Your task to perform on an android device: Open the calendar app, open the side menu, and click the "Day" option Image 0: 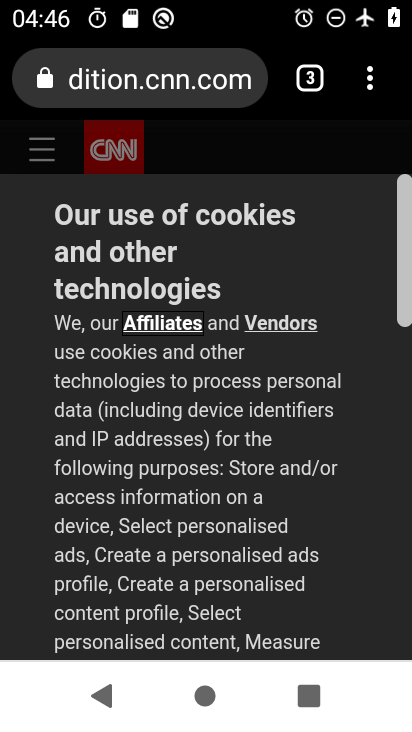
Step 0: press back button
Your task to perform on an android device: Open the calendar app, open the side menu, and click the "Day" option Image 1: 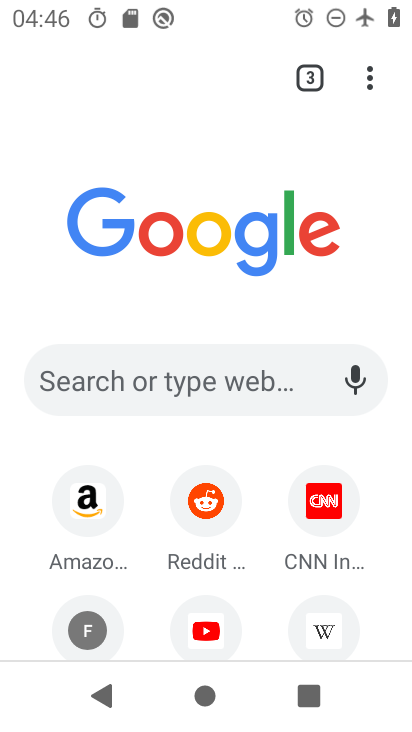
Step 1: press back button
Your task to perform on an android device: Open the calendar app, open the side menu, and click the "Day" option Image 2: 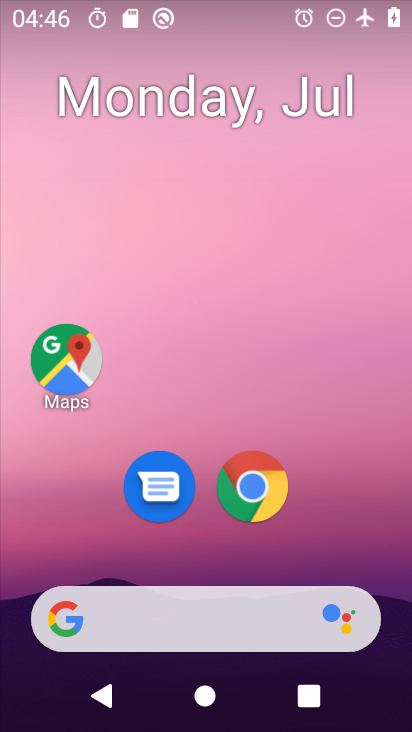
Step 2: drag from (119, 536) to (181, 42)
Your task to perform on an android device: Open the calendar app, open the side menu, and click the "Day" option Image 3: 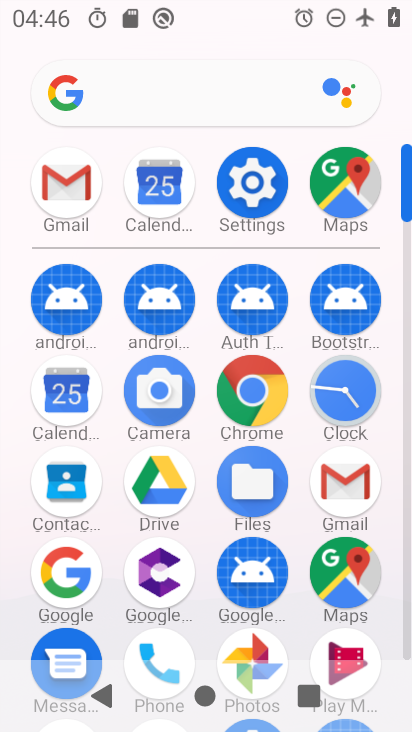
Step 3: click (64, 384)
Your task to perform on an android device: Open the calendar app, open the side menu, and click the "Day" option Image 4: 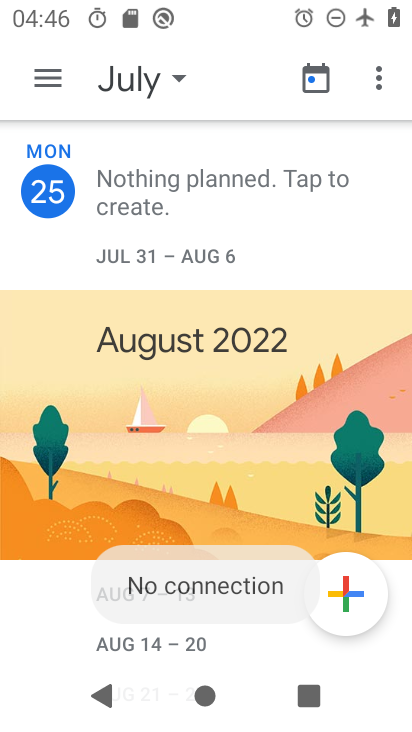
Step 4: click (46, 65)
Your task to perform on an android device: Open the calendar app, open the side menu, and click the "Day" option Image 5: 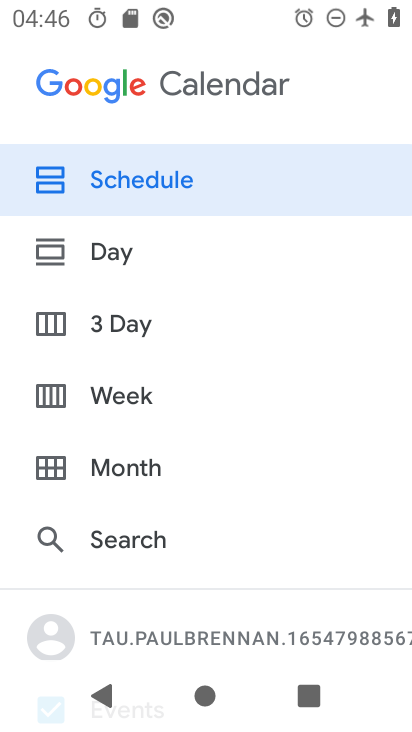
Step 5: click (102, 250)
Your task to perform on an android device: Open the calendar app, open the side menu, and click the "Day" option Image 6: 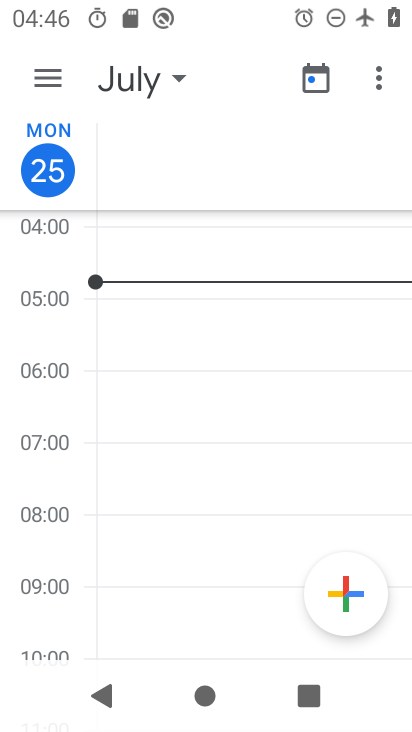
Step 6: task complete